Your task to perform on an android device: Go to battery settings Image 0: 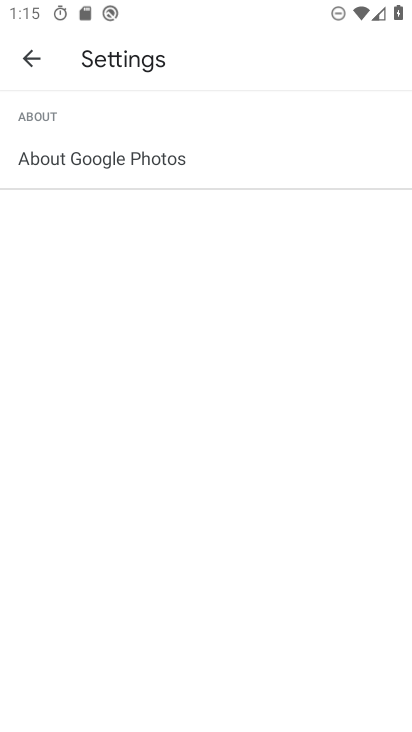
Step 0: press home button
Your task to perform on an android device: Go to battery settings Image 1: 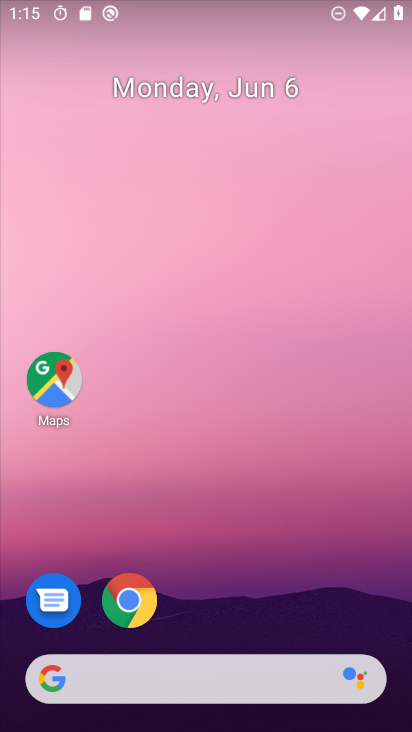
Step 1: drag from (240, 627) to (230, 188)
Your task to perform on an android device: Go to battery settings Image 2: 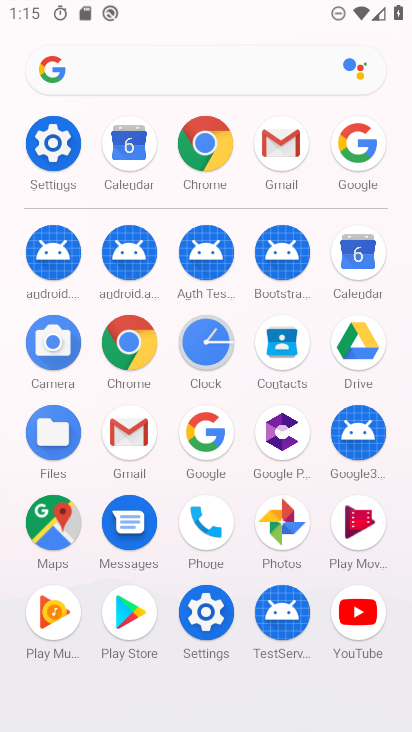
Step 2: click (49, 149)
Your task to perform on an android device: Go to battery settings Image 3: 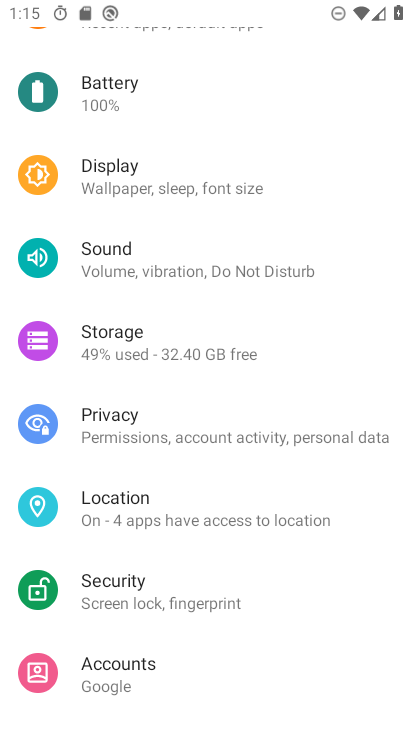
Step 3: click (173, 98)
Your task to perform on an android device: Go to battery settings Image 4: 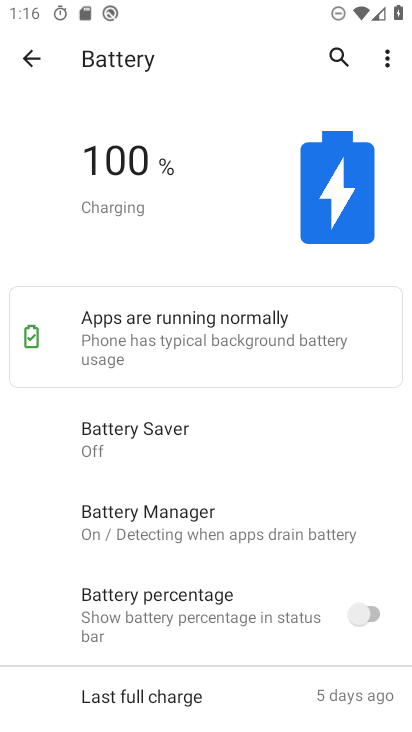
Step 4: task complete